Your task to perform on an android device: Open internet settings Image 0: 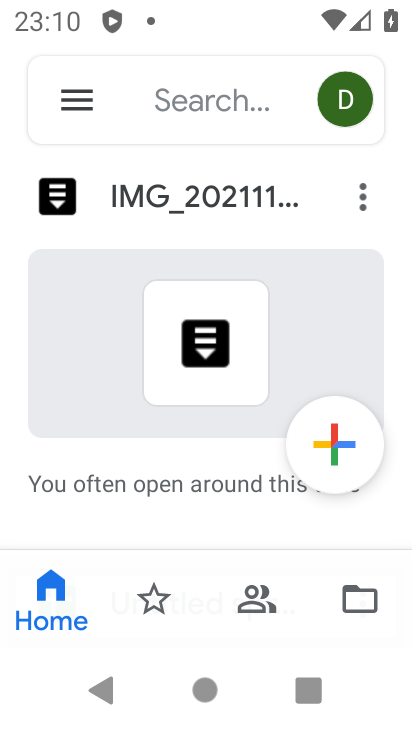
Step 0: press home button
Your task to perform on an android device: Open internet settings Image 1: 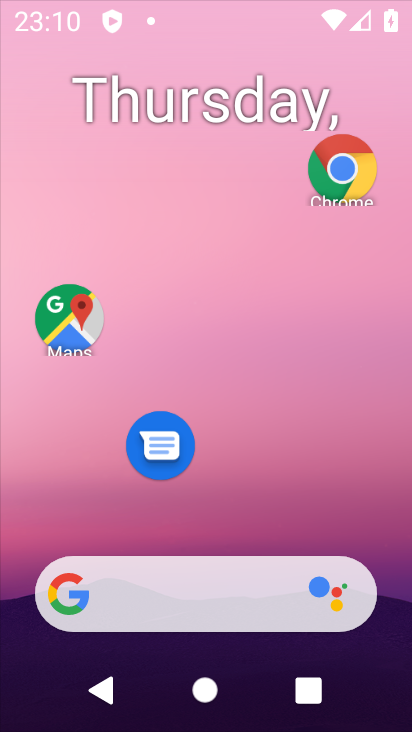
Step 1: drag from (207, 519) to (249, 64)
Your task to perform on an android device: Open internet settings Image 2: 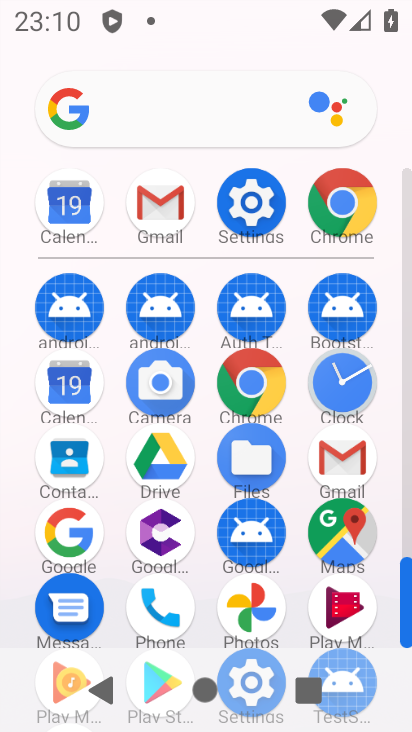
Step 2: click (248, 204)
Your task to perform on an android device: Open internet settings Image 3: 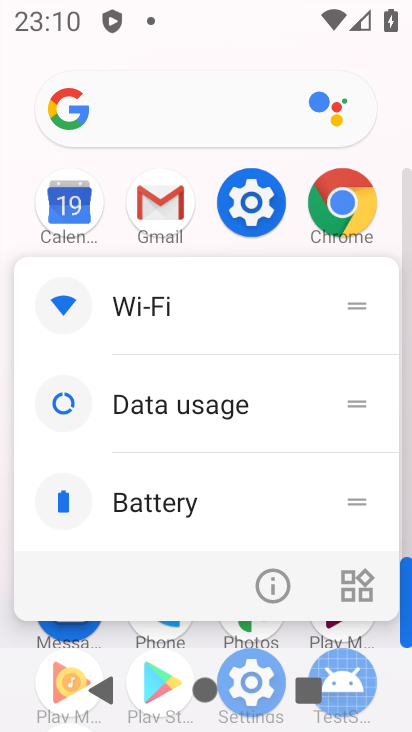
Step 3: click (289, 580)
Your task to perform on an android device: Open internet settings Image 4: 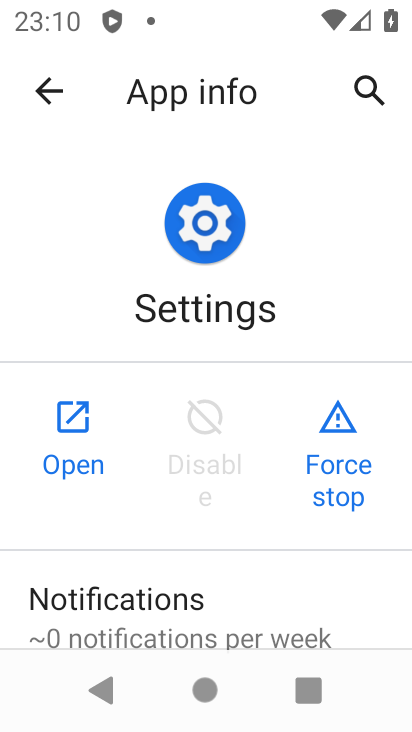
Step 4: click (87, 444)
Your task to perform on an android device: Open internet settings Image 5: 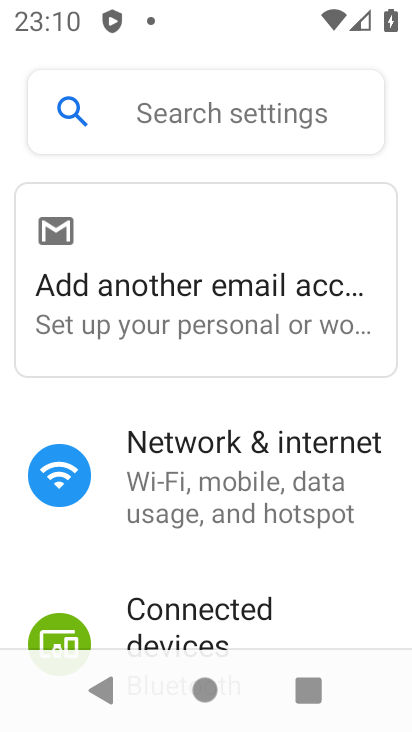
Step 5: click (203, 492)
Your task to perform on an android device: Open internet settings Image 6: 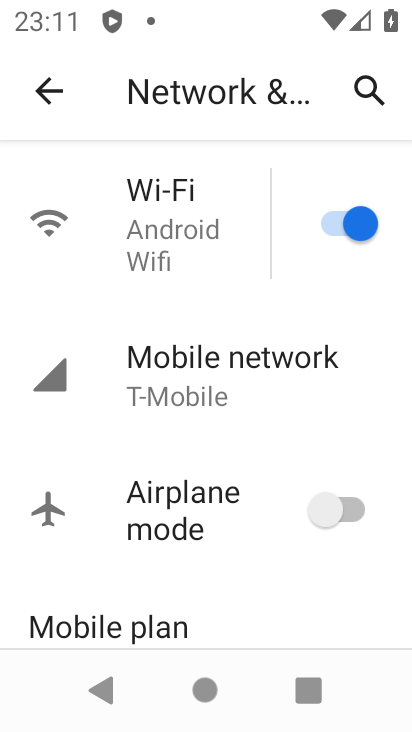
Step 6: drag from (167, 600) to (227, 316)
Your task to perform on an android device: Open internet settings Image 7: 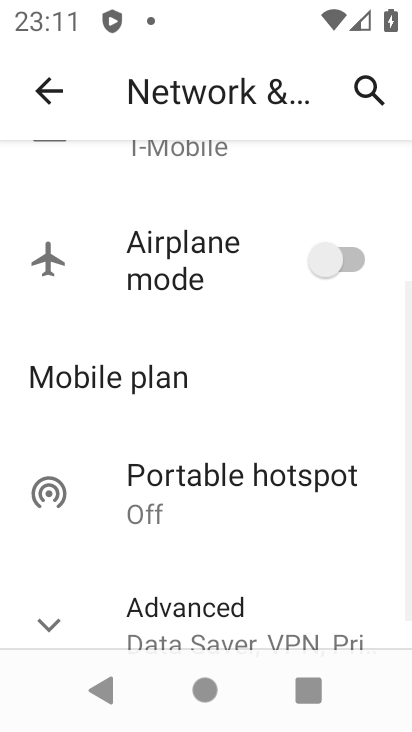
Step 7: drag from (231, 276) to (246, 730)
Your task to perform on an android device: Open internet settings Image 8: 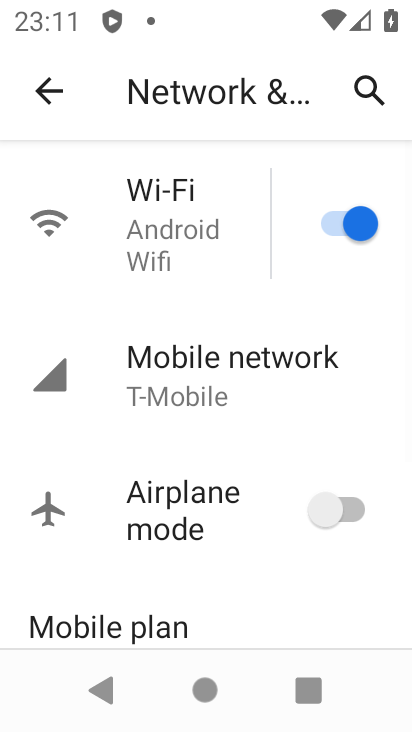
Step 8: click (198, 393)
Your task to perform on an android device: Open internet settings Image 9: 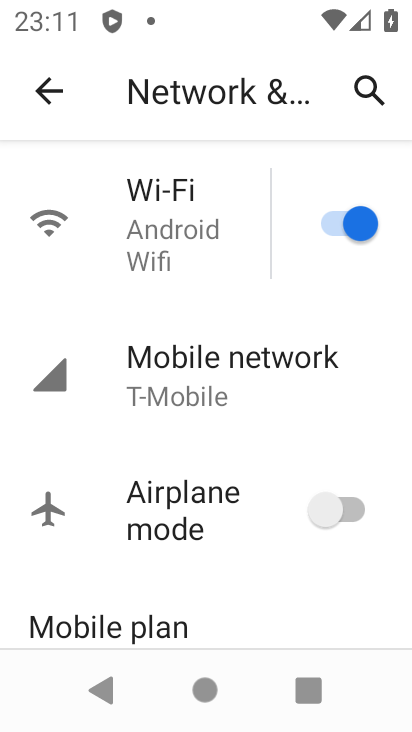
Step 9: task complete